Your task to perform on an android device: How big is a dinosaur? Image 0: 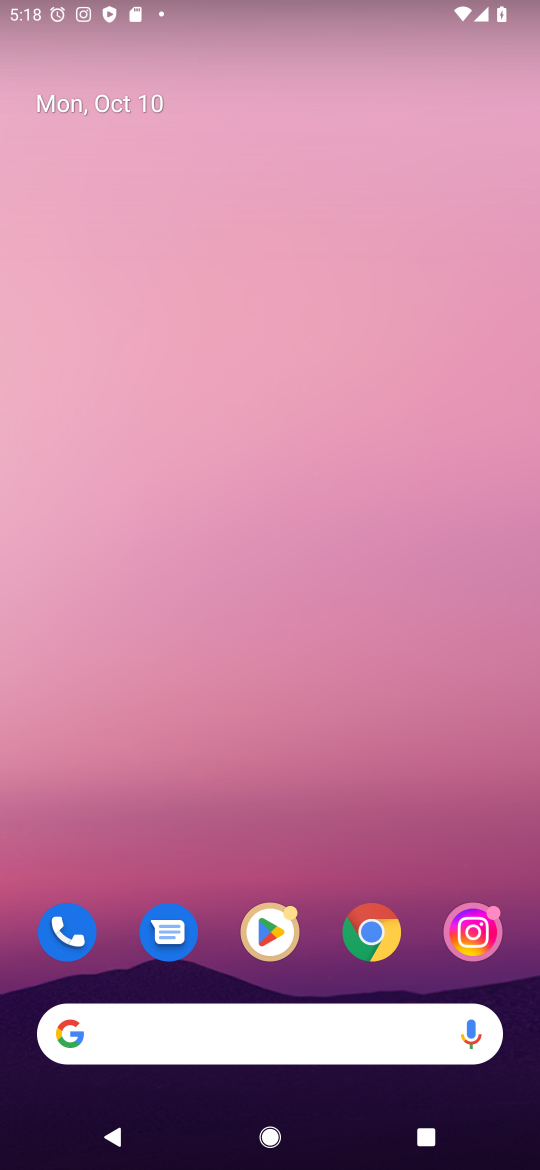
Step 0: click (327, 1033)
Your task to perform on an android device: How big is a dinosaur? Image 1: 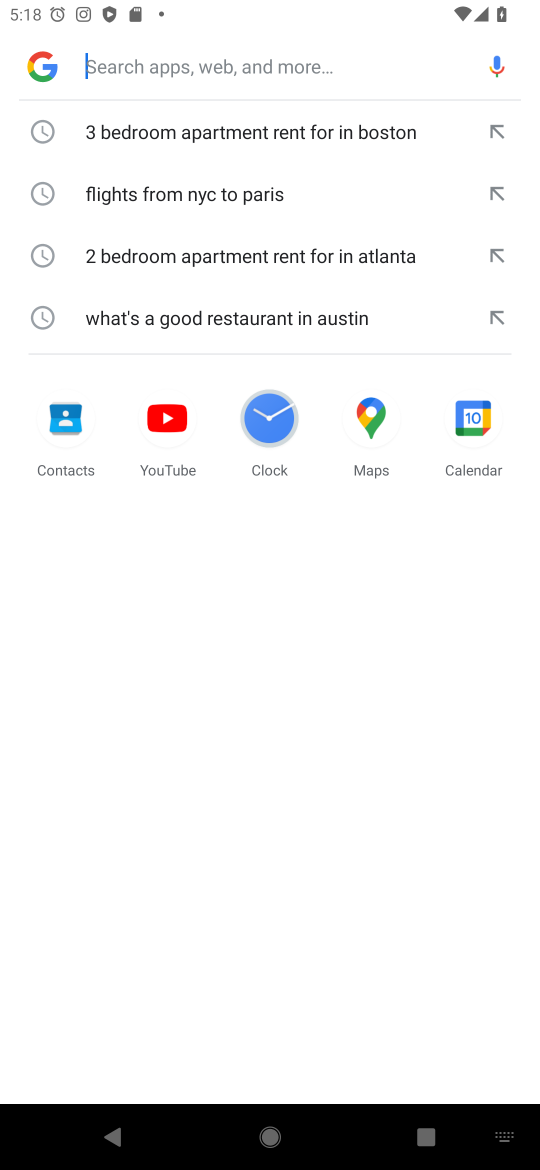
Step 1: type "How big is a dinosaur"
Your task to perform on an android device: How big is a dinosaur? Image 2: 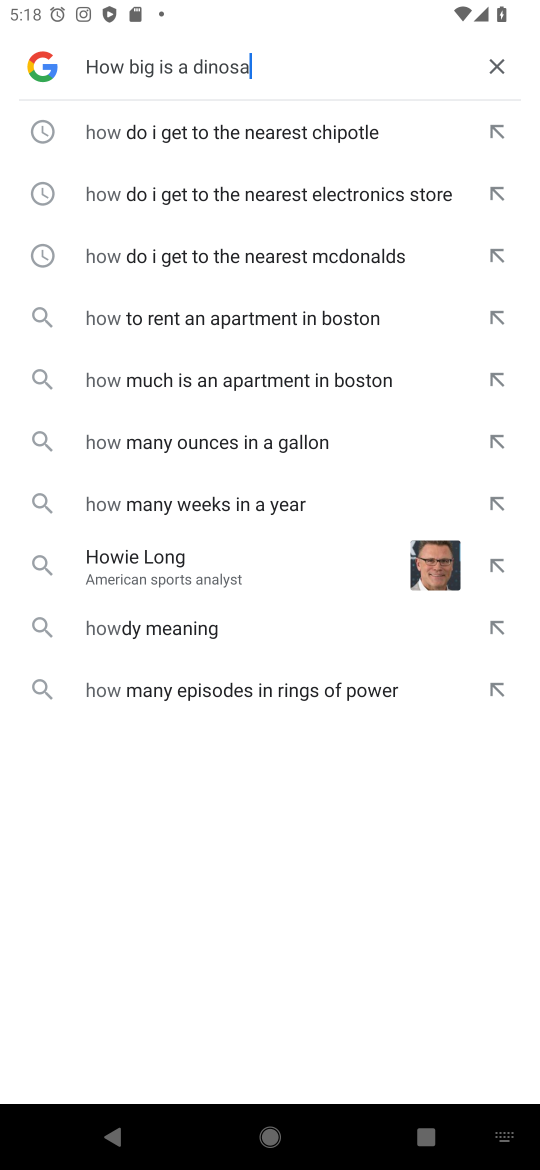
Step 2: press enter
Your task to perform on an android device: How big is a dinosaur? Image 3: 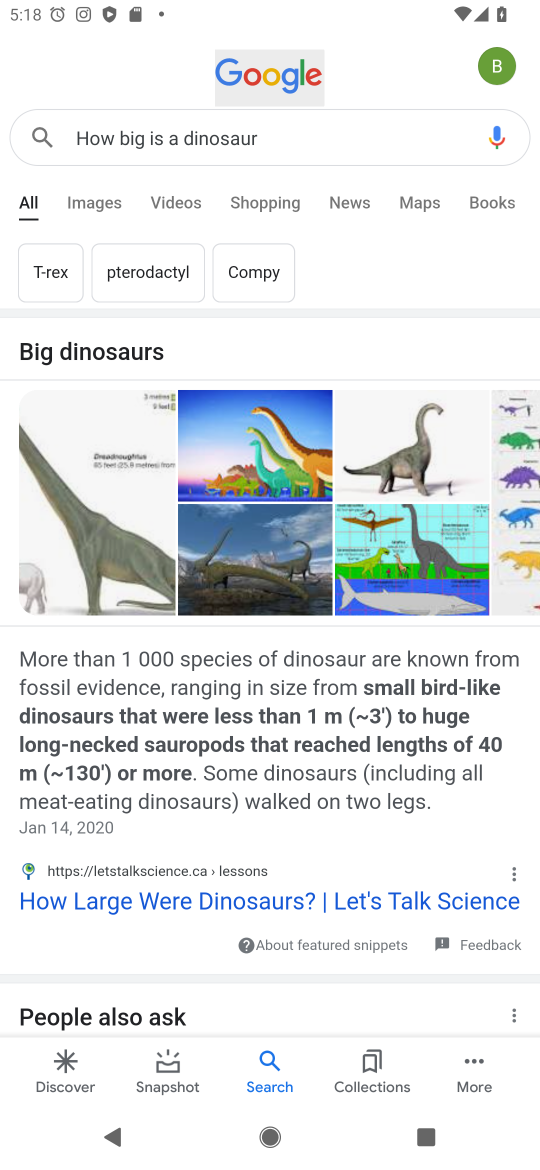
Step 3: task complete